Your task to perform on an android device: toggle priority inbox in the gmail app Image 0: 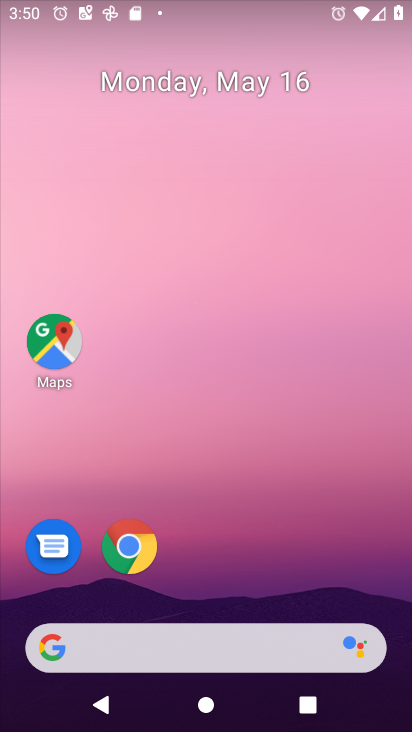
Step 0: drag from (380, 581) to (361, 121)
Your task to perform on an android device: toggle priority inbox in the gmail app Image 1: 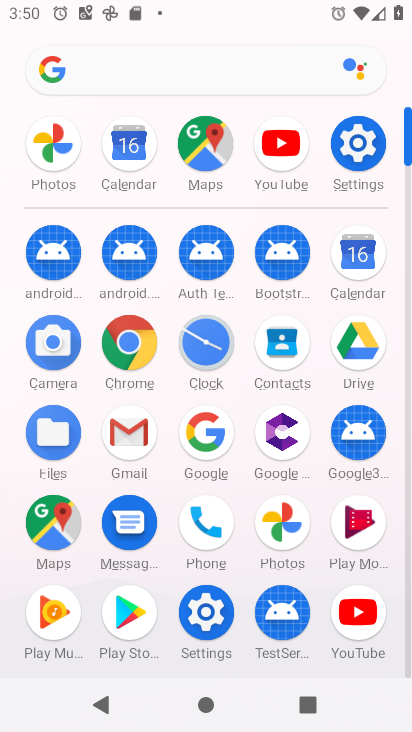
Step 1: click (136, 434)
Your task to perform on an android device: toggle priority inbox in the gmail app Image 2: 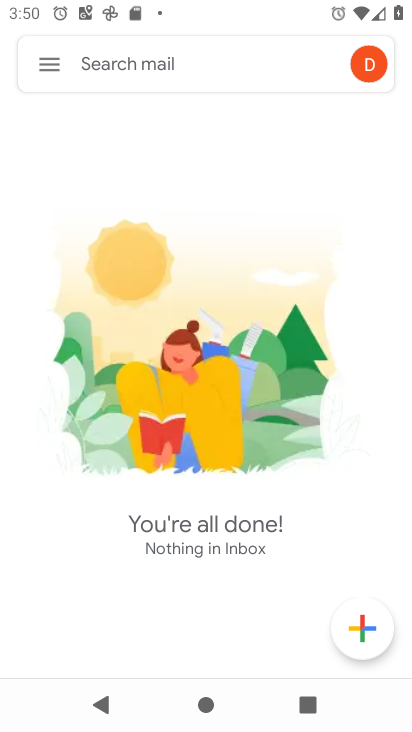
Step 2: click (39, 58)
Your task to perform on an android device: toggle priority inbox in the gmail app Image 3: 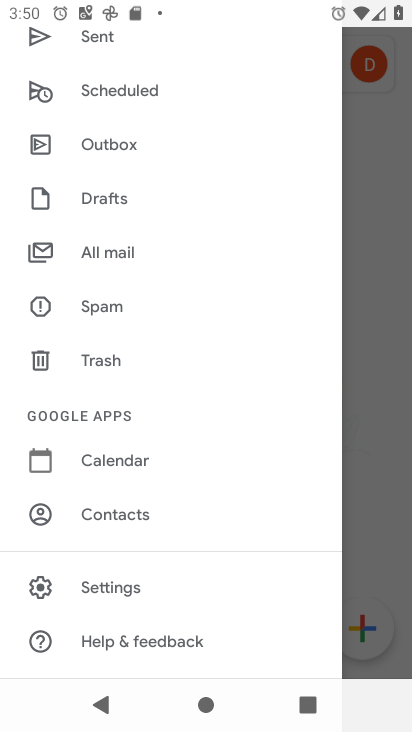
Step 3: drag from (269, 329) to (263, 440)
Your task to perform on an android device: toggle priority inbox in the gmail app Image 4: 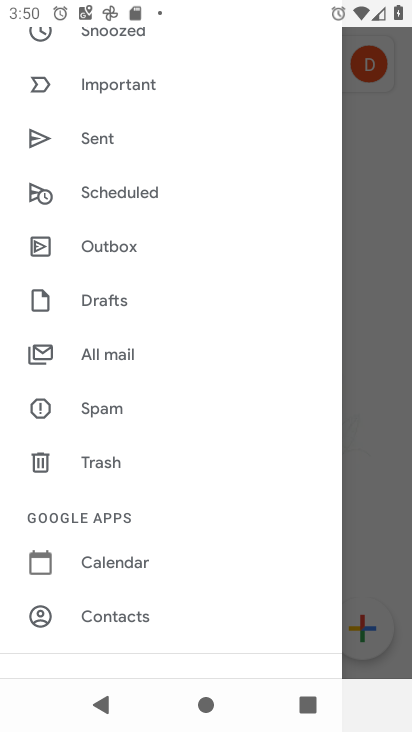
Step 4: drag from (269, 264) to (241, 428)
Your task to perform on an android device: toggle priority inbox in the gmail app Image 5: 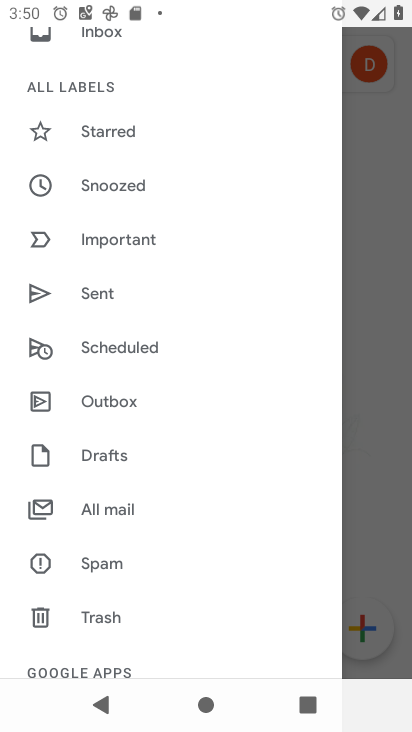
Step 5: drag from (263, 235) to (249, 430)
Your task to perform on an android device: toggle priority inbox in the gmail app Image 6: 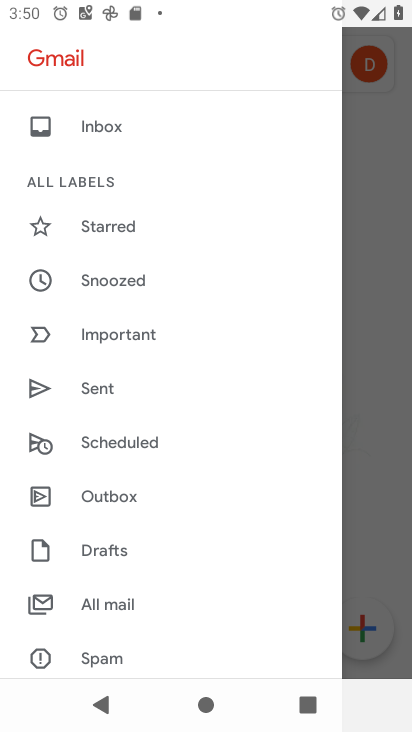
Step 6: drag from (254, 233) to (261, 392)
Your task to perform on an android device: toggle priority inbox in the gmail app Image 7: 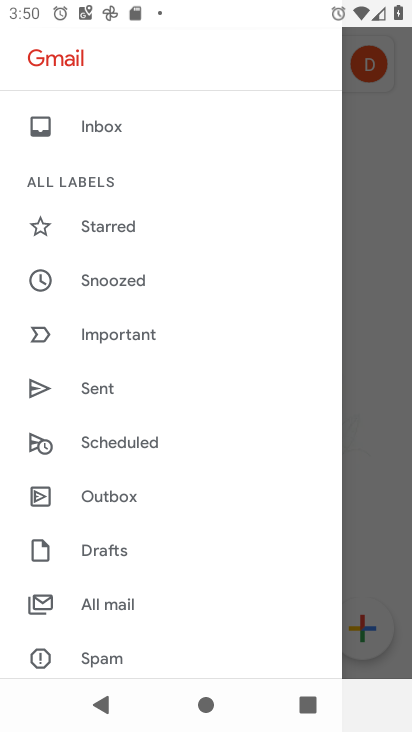
Step 7: drag from (262, 514) to (282, 366)
Your task to perform on an android device: toggle priority inbox in the gmail app Image 8: 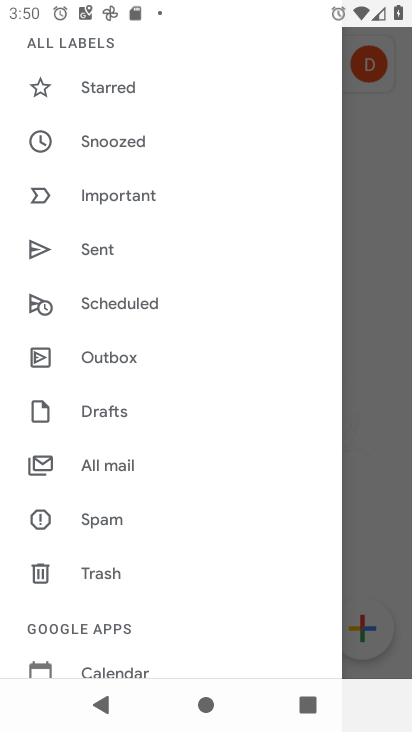
Step 8: drag from (275, 532) to (286, 381)
Your task to perform on an android device: toggle priority inbox in the gmail app Image 9: 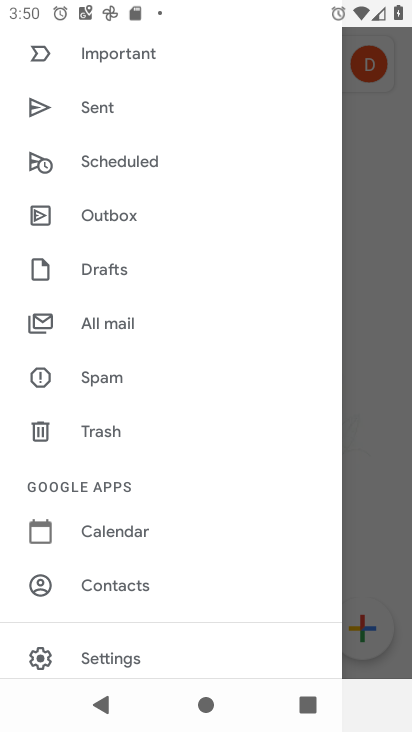
Step 9: drag from (287, 562) to (286, 380)
Your task to perform on an android device: toggle priority inbox in the gmail app Image 10: 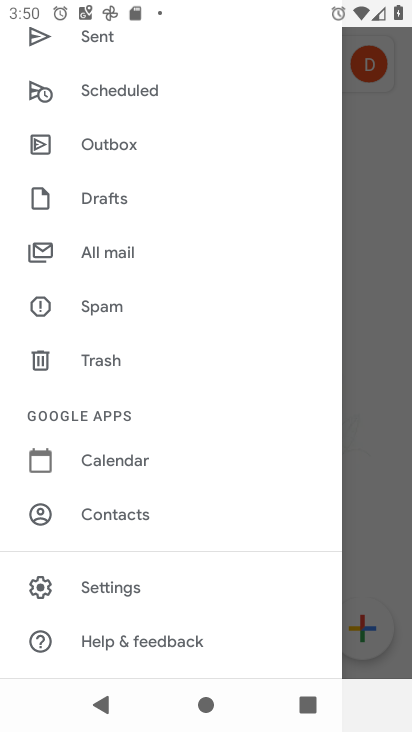
Step 10: click (168, 589)
Your task to perform on an android device: toggle priority inbox in the gmail app Image 11: 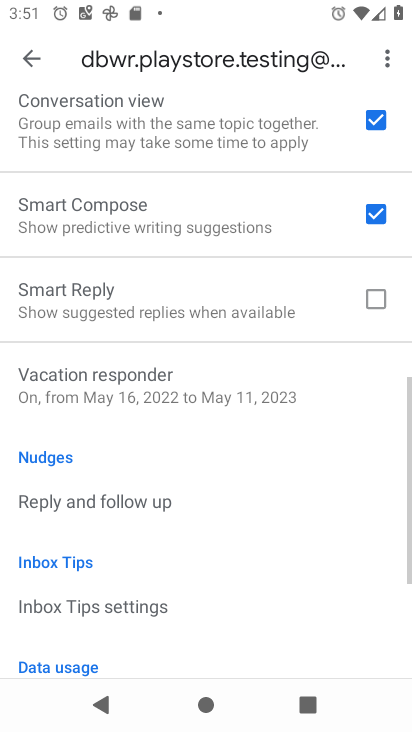
Step 11: drag from (275, 578) to (316, 345)
Your task to perform on an android device: toggle priority inbox in the gmail app Image 12: 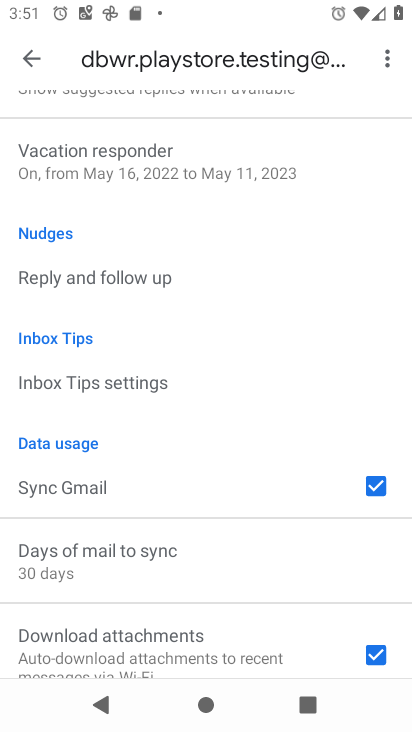
Step 12: drag from (315, 603) to (319, 346)
Your task to perform on an android device: toggle priority inbox in the gmail app Image 13: 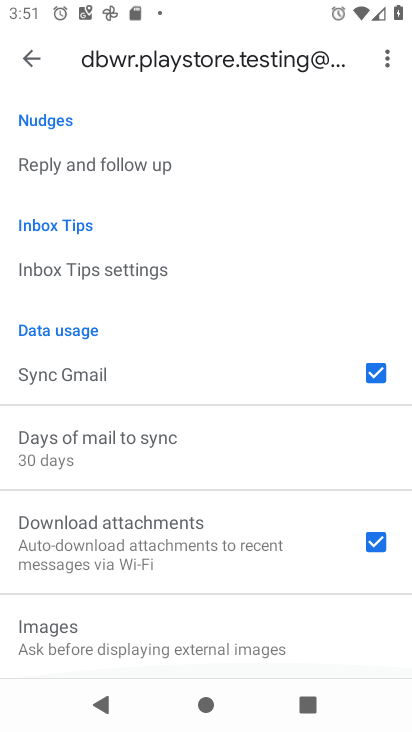
Step 13: drag from (318, 248) to (303, 460)
Your task to perform on an android device: toggle priority inbox in the gmail app Image 14: 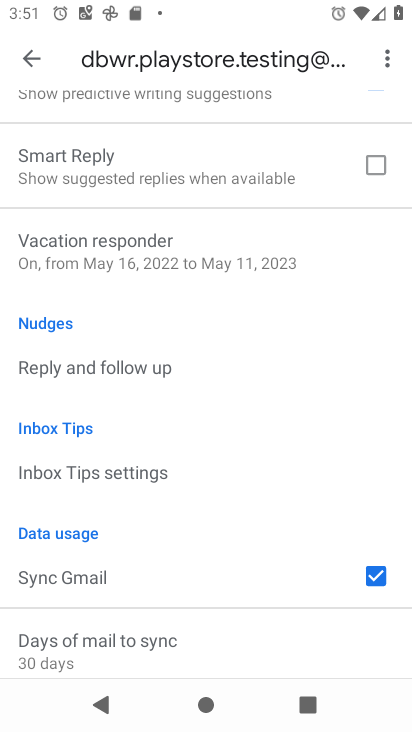
Step 14: drag from (319, 280) to (301, 449)
Your task to perform on an android device: toggle priority inbox in the gmail app Image 15: 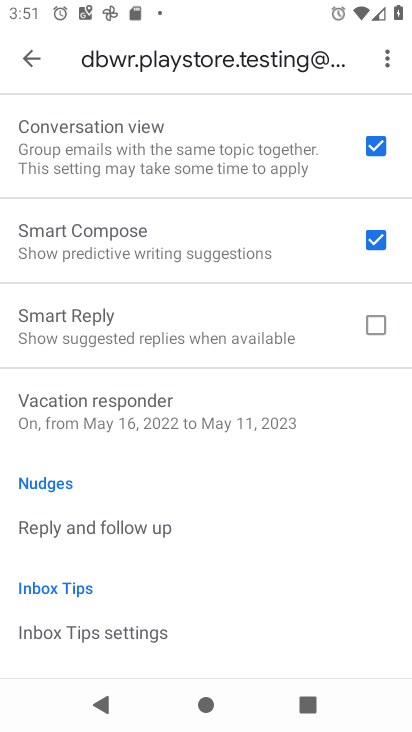
Step 15: drag from (318, 245) to (303, 424)
Your task to perform on an android device: toggle priority inbox in the gmail app Image 16: 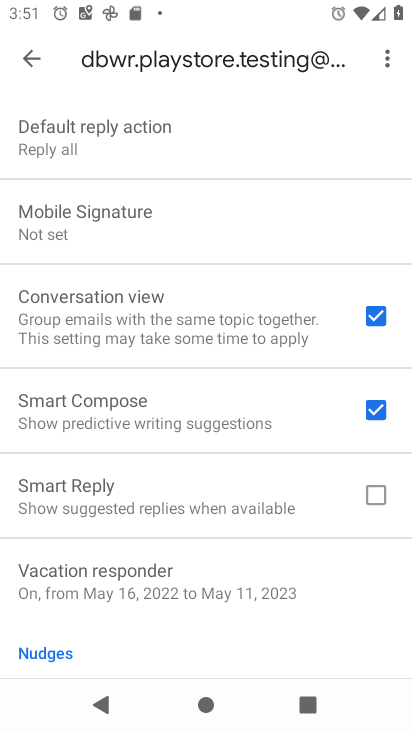
Step 16: drag from (299, 236) to (295, 409)
Your task to perform on an android device: toggle priority inbox in the gmail app Image 17: 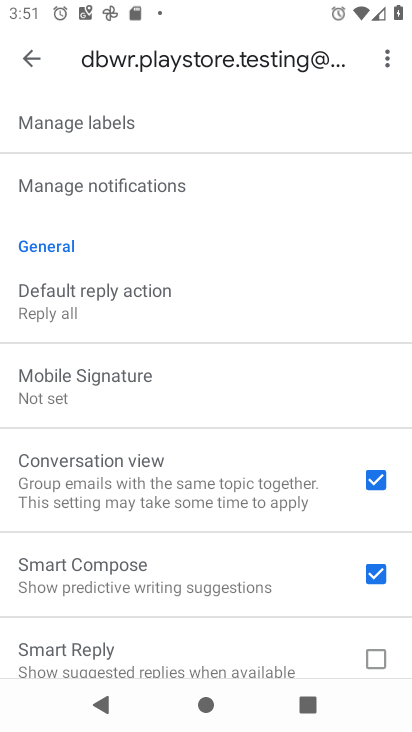
Step 17: drag from (308, 265) to (289, 398)
Your task to perform on an android device: toggle priority inbox in the gmail app Image 18: 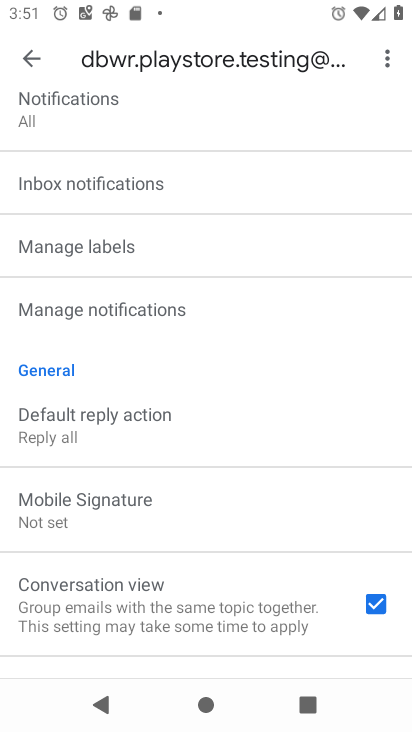
Step 18: drag from (276, 189) to (268, 293)
Your task to perform on an android device: toggle priority inbox in the gmail app Image 19: 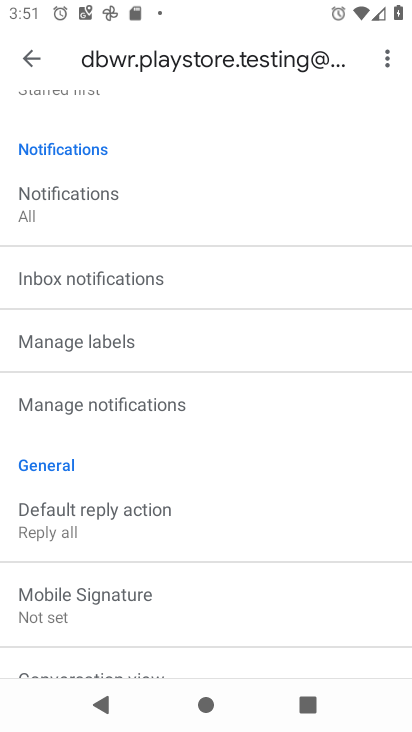
Step 19: drag from (186, 199) to (205, 360)
Your task to perform on an android device: toggle priority inbox in the gmail app Image 20: 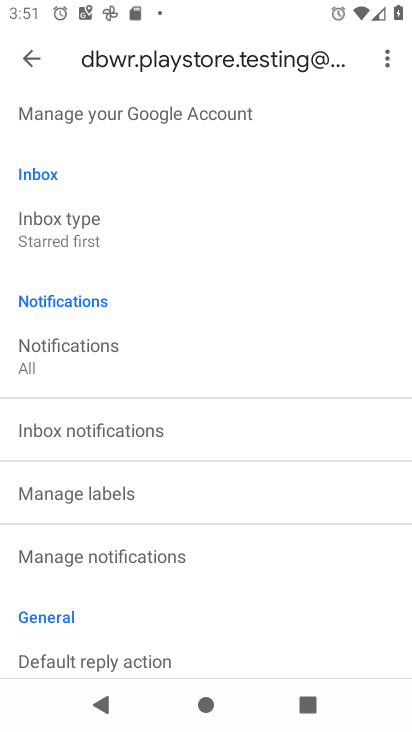
Step 20: click (58, 234)
Your task to perform on an android device: toggle priority inbox in the gmail app Image 21: 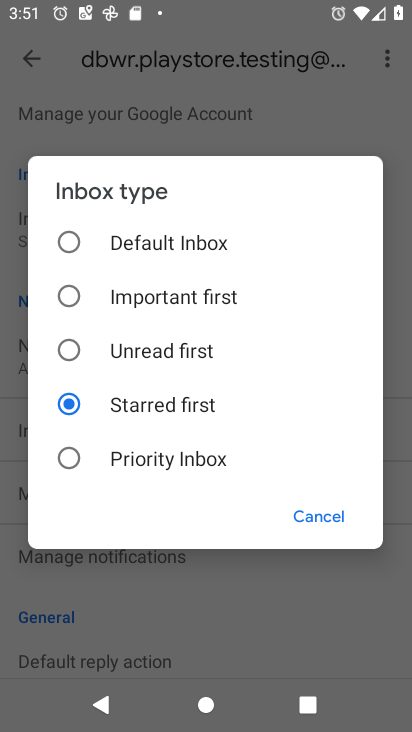
Step 21: click (150, 460)
Your task to perform on an android device: toggle priority inbox in the gmail app Image 22: 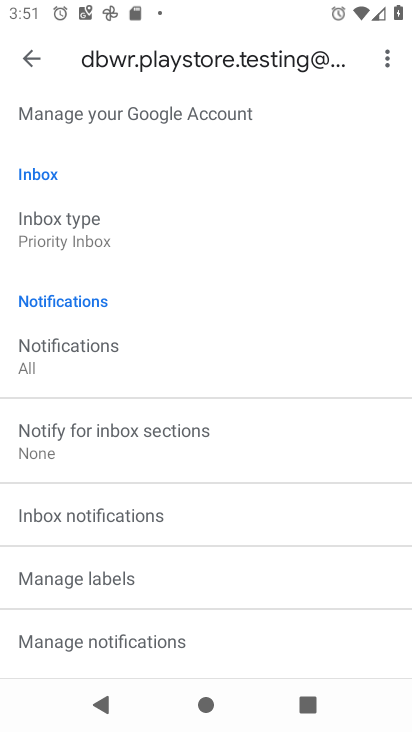
Step 22: task complete